Your task to perform on an android device: open wifi settings Image 0: 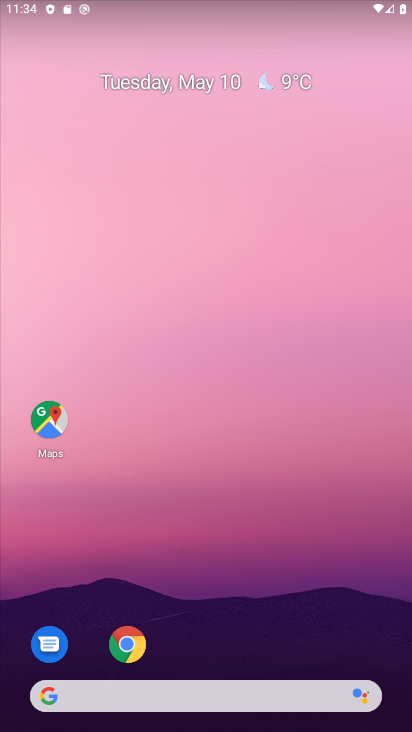
Step 0: drag from (200, 651) to (264, 180)
Your task to perform on an android device: open wifi settings Image 1: 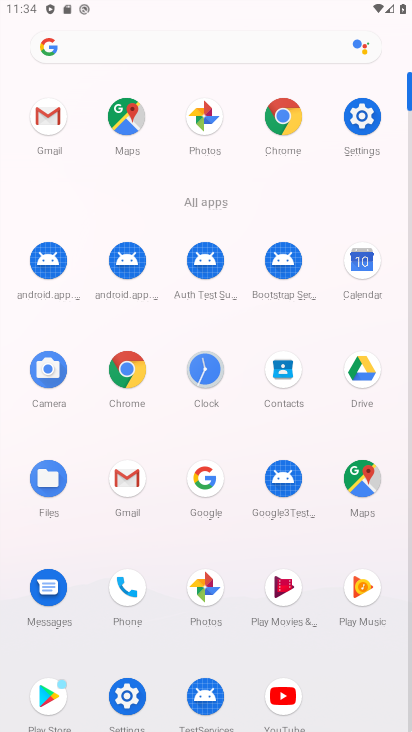
Step 1: click (365, 150)
Your task to perform on an android device: open wifi settings Image 2: 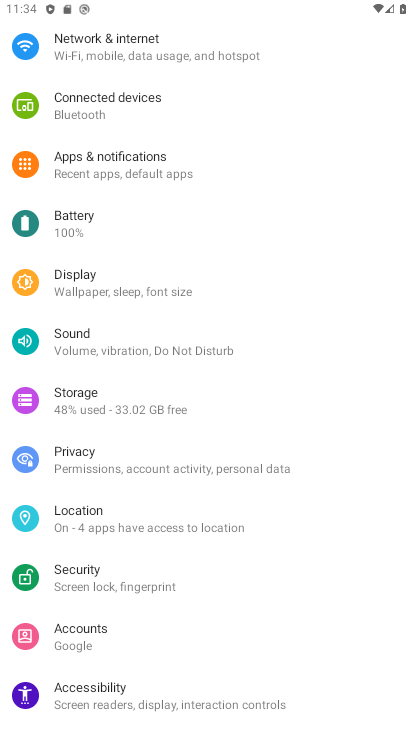
Step 2: drag from (204, 476) to (191, 527)
Your task to perform on an android device: open wifi settings Image 3: 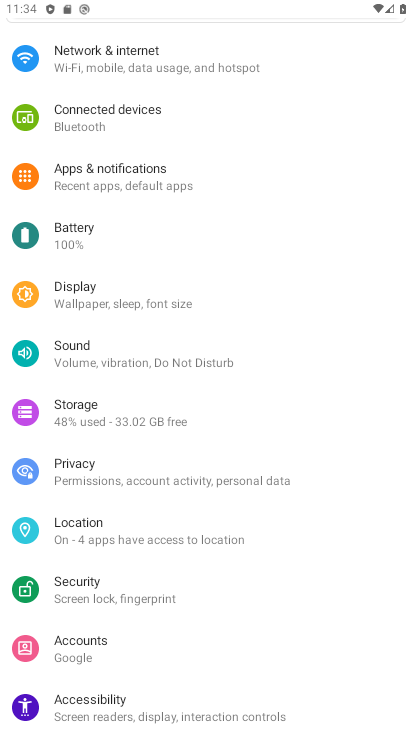
Step 3: drag from (176, 218) to (147, 532)
Your task to perform on an android device: open wifi settings Image 4: 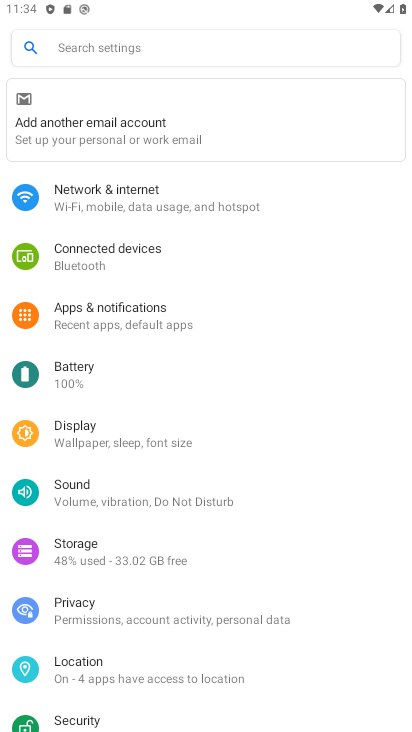
Step 4: click (155, 203)
Your task to perform on an android device: open wifi settings Image 5: 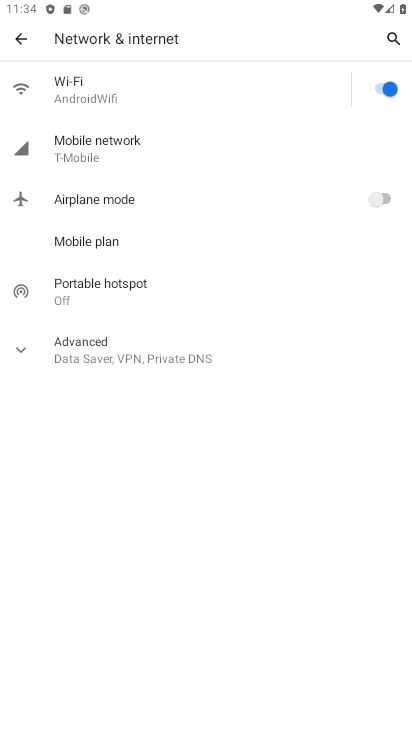
Step 5: click (112, 101)
Your task to perform on an android device: open wifi settings Image 6: 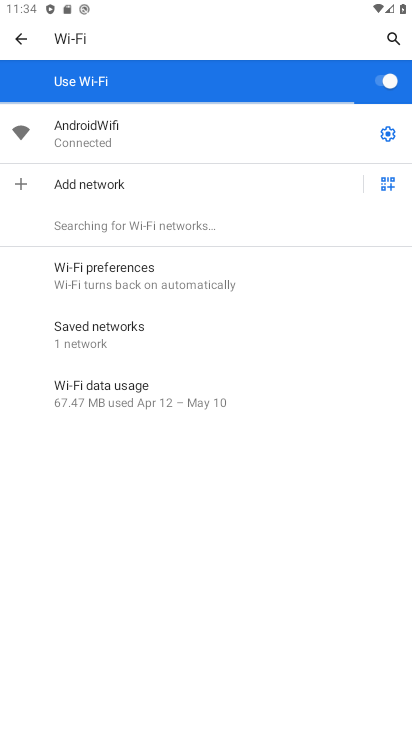
Step 6: task complete